Your task to perform on an android device: Search for "jbl flip 4" on costco, select the first entry, and add it to the cart. Image 0: 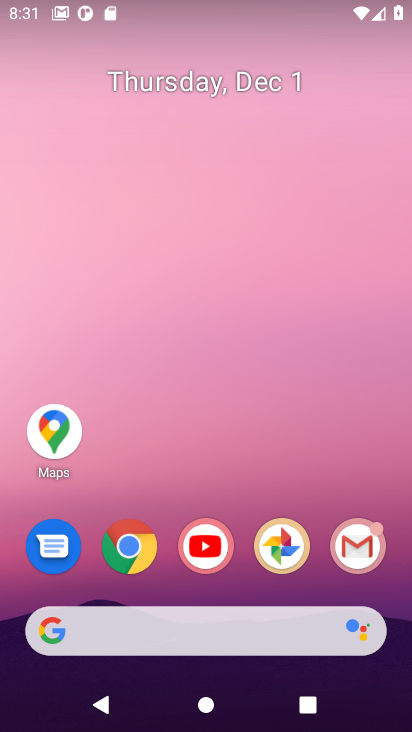
Step 0: click (132, 552)
Your task to perform on an android device: Search for "jbl flip 4" on costco, select the first entry, and add it to the cart. Image 1: 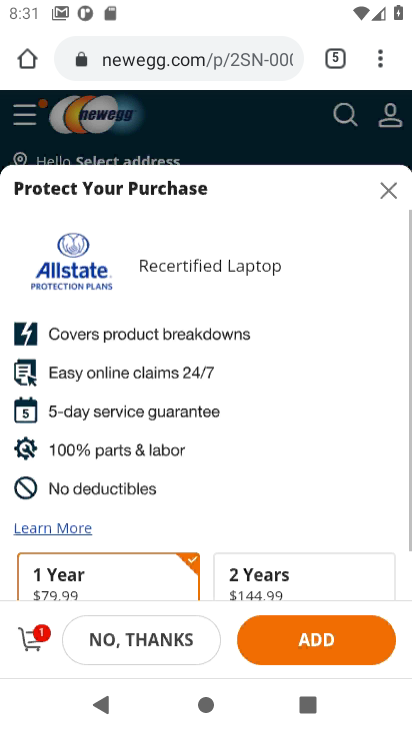
Step 1: click (162, 62)
Your task to perform on an android device: Search for "jbl flip 4" on costco, select the first entry, and add it to the cart. Image 2: 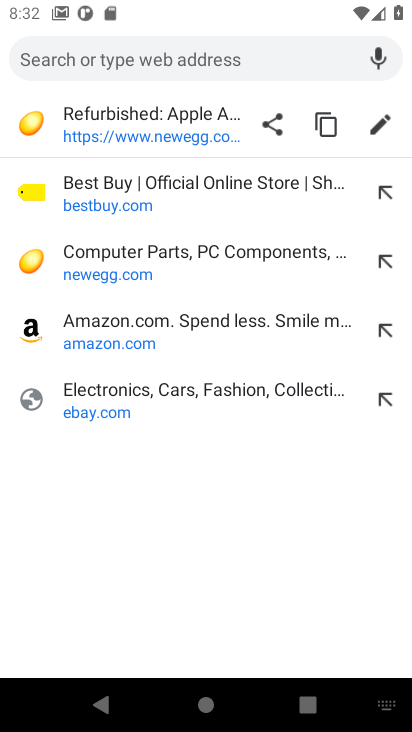
Step 2: type "costco.com"
Your task to perform on an android device: Search for "jbl flip 4" on costco, select the first entry, and add it to the cart. Image 3: 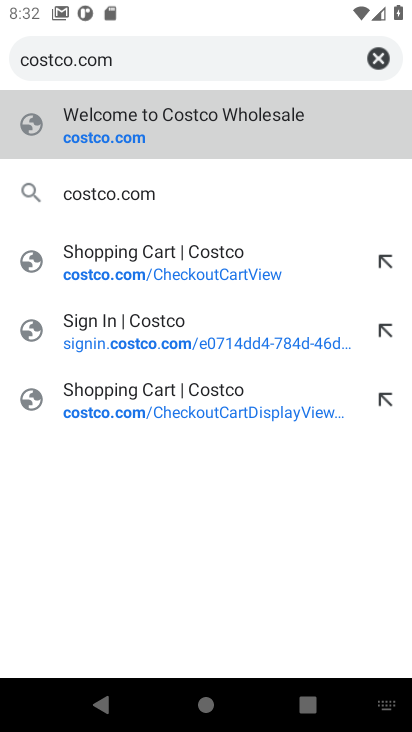
Step 3: click (91, 133)
Your task to perform on an android device: Search for "jbl flip 4" on costco, select the first entry, and add it to the cart. Image 4: 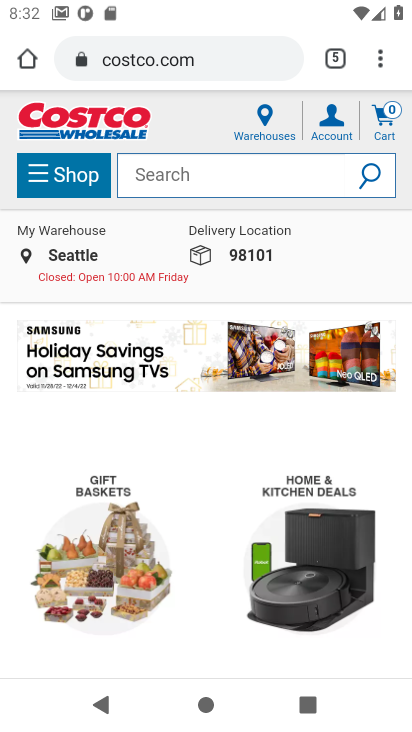
Step 4: click (190, 166)
Your task to perform on an android device: Search for "jbl flip 4" on costco, select the first entry, and add it to the cart. Image 5: 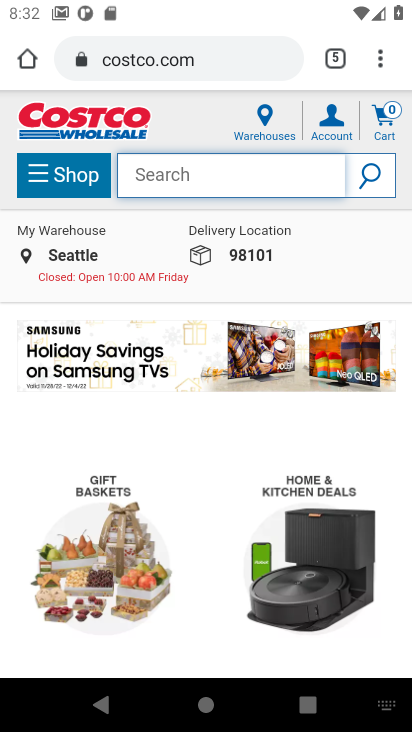
Step 5: type "jbl flip 4"
Your task to perform on an android device: Search for "jbl flip 4" on costco, select the first entry, and add it to the cart. Image 6: 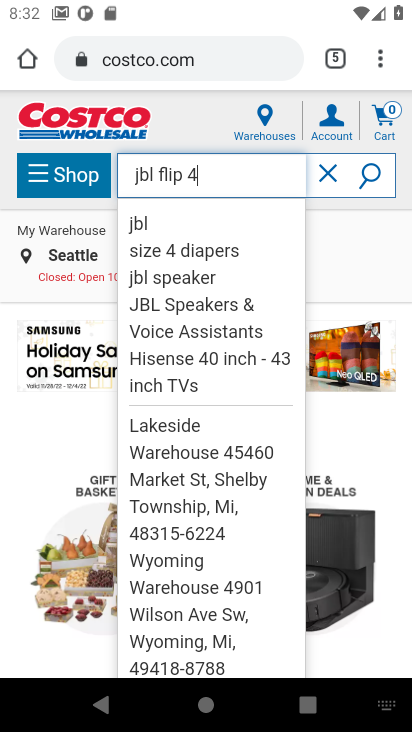
Step 6: click (378, 174)
Your task to perform on an android device: Search for "jbl flip 4" on costco, select the first entry, and add it to the cart. Image 7: 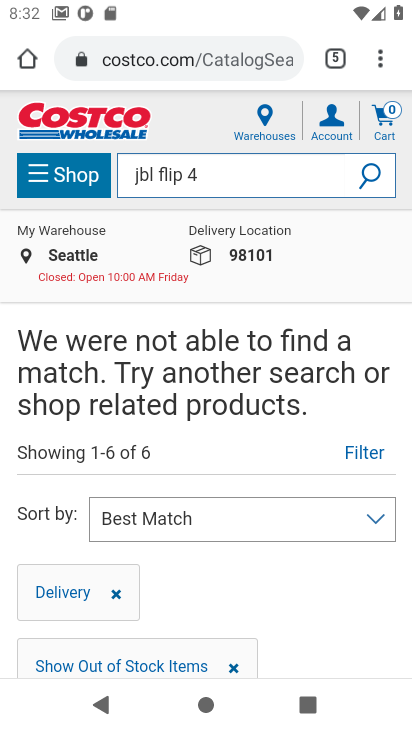
Step 7: task complete